Your task to perform on an android device: What is the recent news? Image 0: 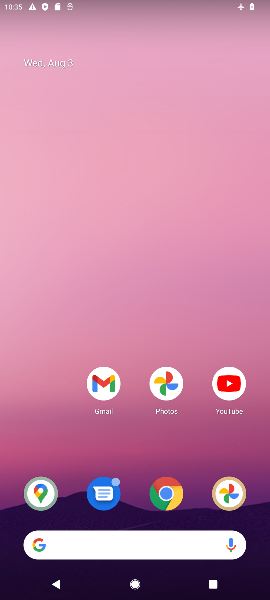
Step 0: click (50, 494)
Your task to perform on an android device: What is the recent news? Image 1: 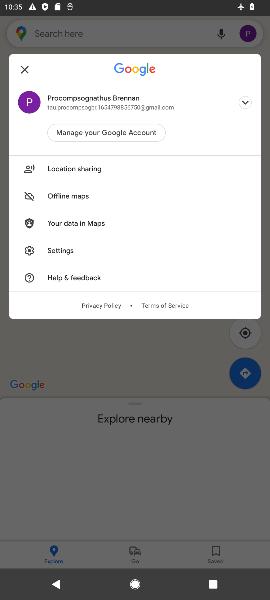
Step 1: click (122, 331)
Your task to perform on an android device: What is the recent news? Image 2: 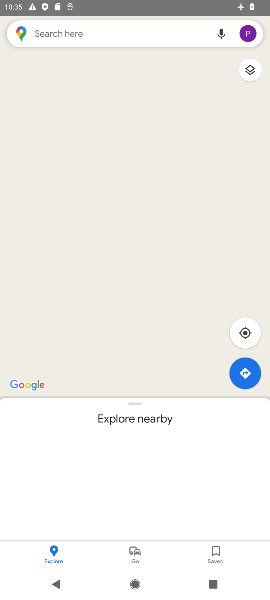
Step 2: click (25, 34)
Your task to perform on an android device: What is the recent news? Image 3: 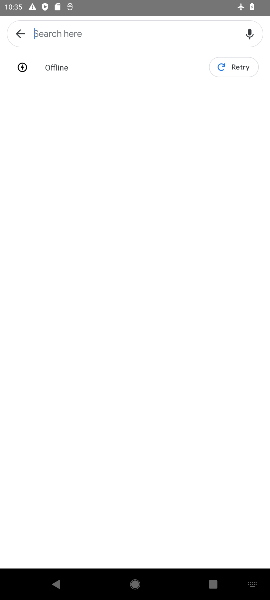
Step 3: task complete